Your task to perform on an android device: empty trash in the gmail app Image 0: 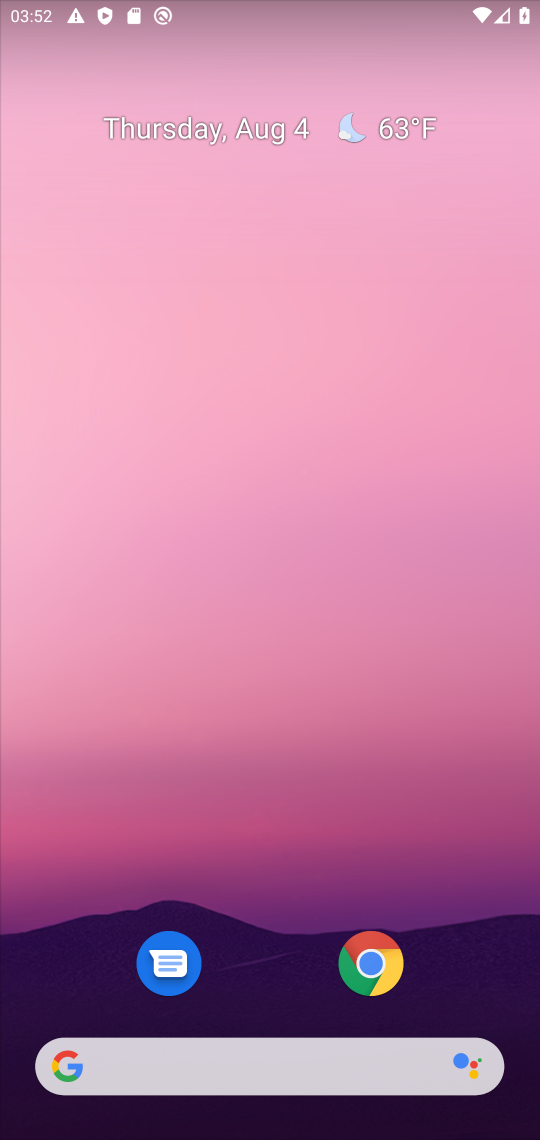
Step 0: drag from (276, 915) to (311, 90)
Your task to perform on an android device: empty trash in the gmail app Image 1: 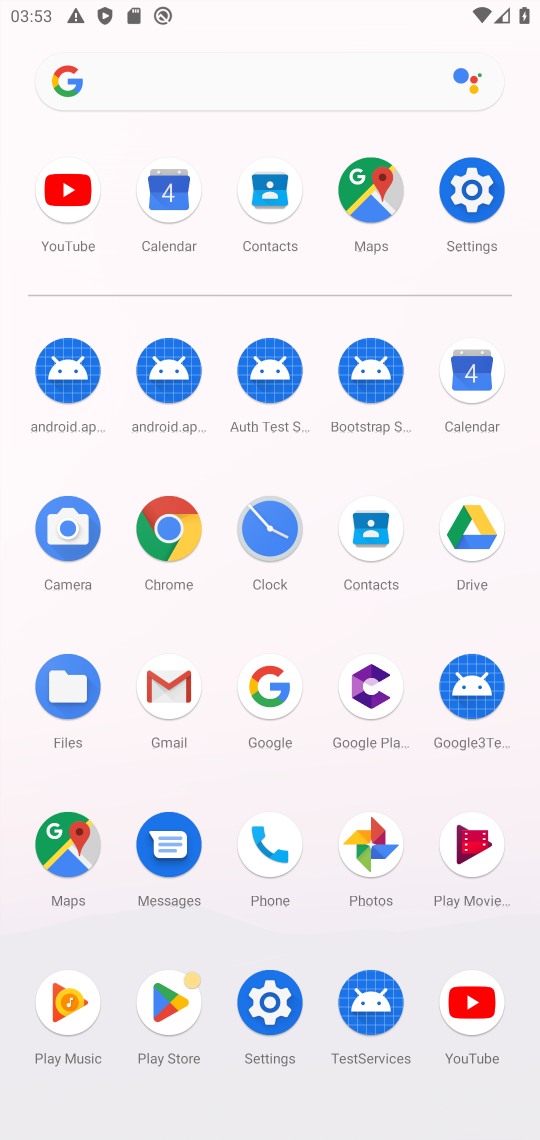
Step 1: click (168, 700)
Your task to perform on an android device: empty trash in the gmail app Image 2: 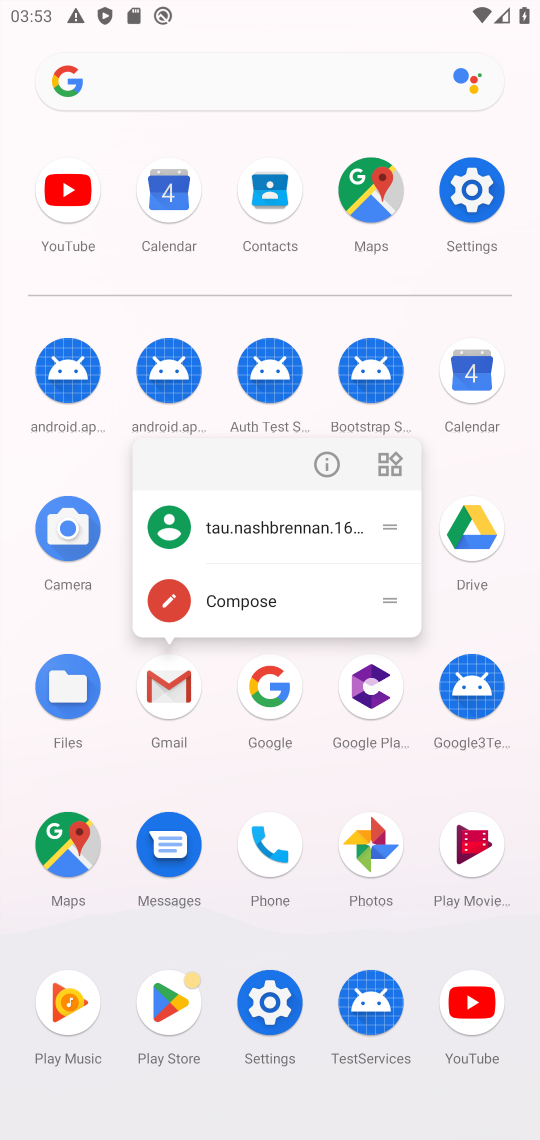
Step 2: click (169, 683)
Your task to perform on an android device: empty trash in the gmail app Image 3: 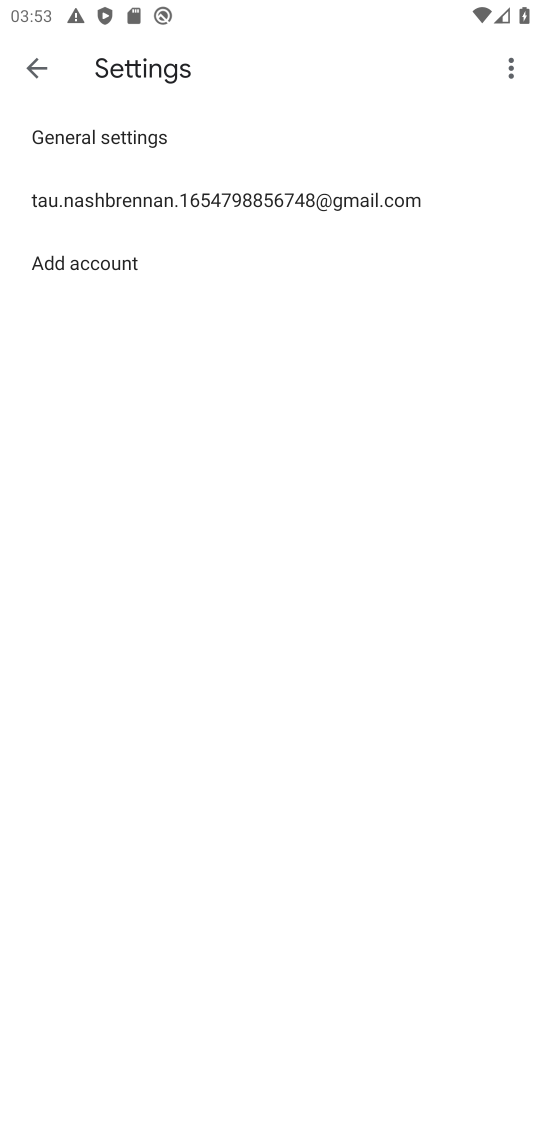
Step 3: click (39, 62)
Your task to perform on an android device: empty trash in the gmail app Image 4: 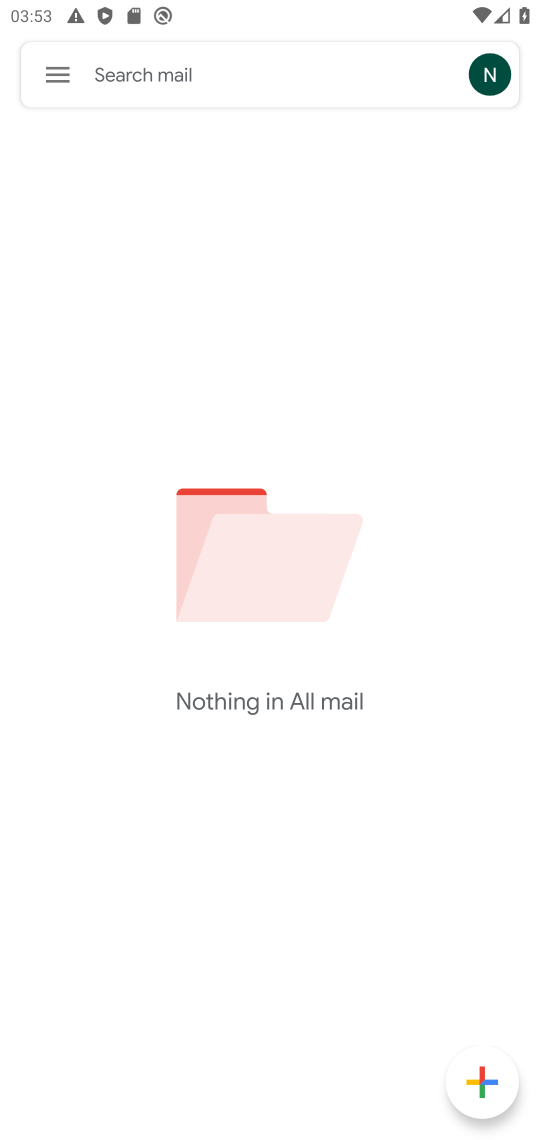
Step 4: click (59, 71)
Your task to perform on an android device: empty trash in the gmail app Image 5: 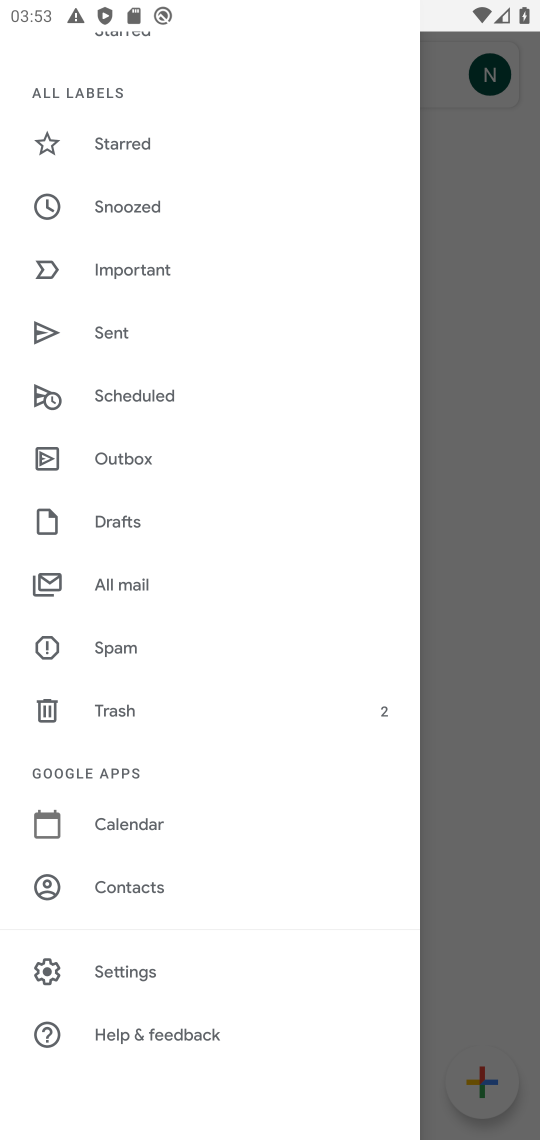
Step 5: click (108, 723)
Your task to perform on an android device: empty trash in the gmail app Image 6: 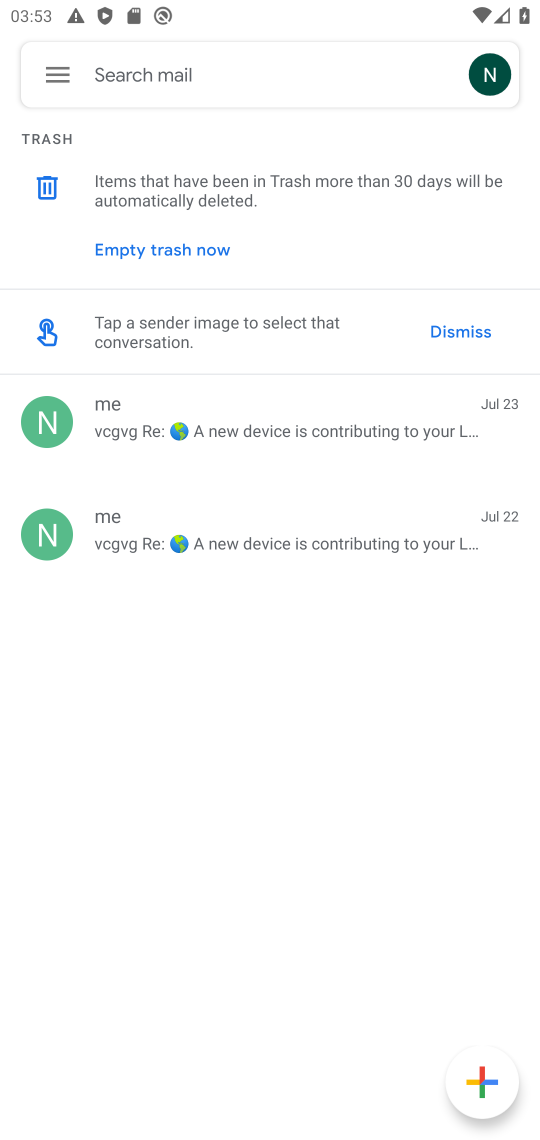
Step 6: click (133, 252)
Your task to perform on an android device: empty trash in the gmail app Image 7: 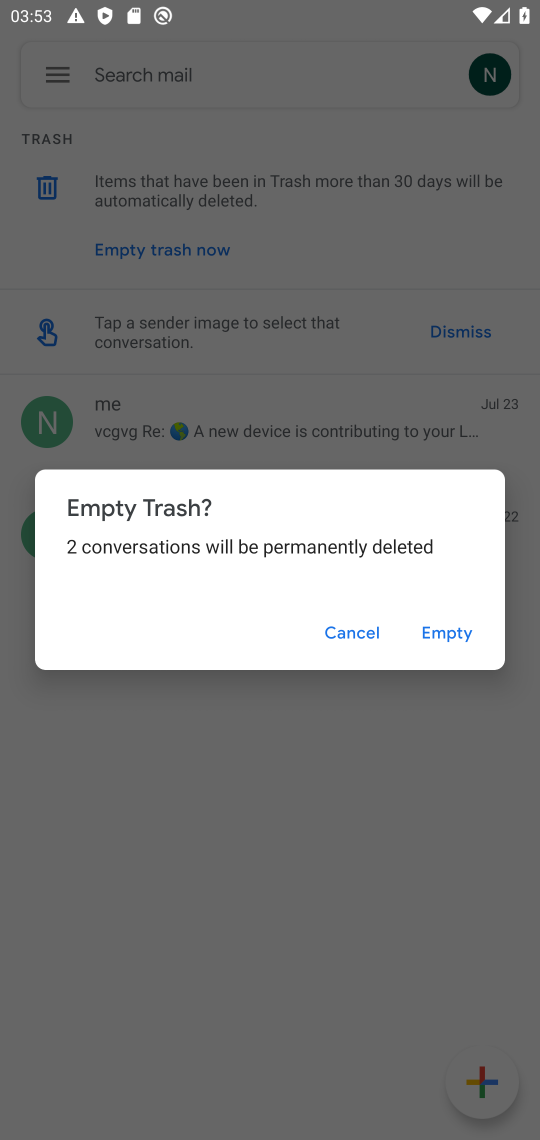
Step 7: click (432, 641)
Your task to perform on an android device: empty trash in the gmail app Image 8: 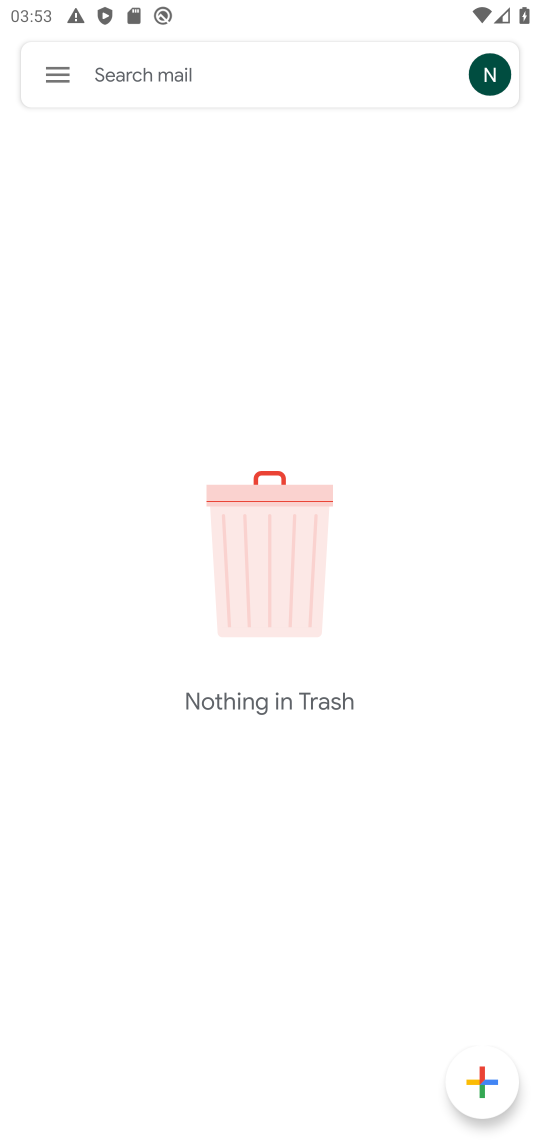
Step 8: task complete